Your task to perform on an android device: change the clock style Image 0: 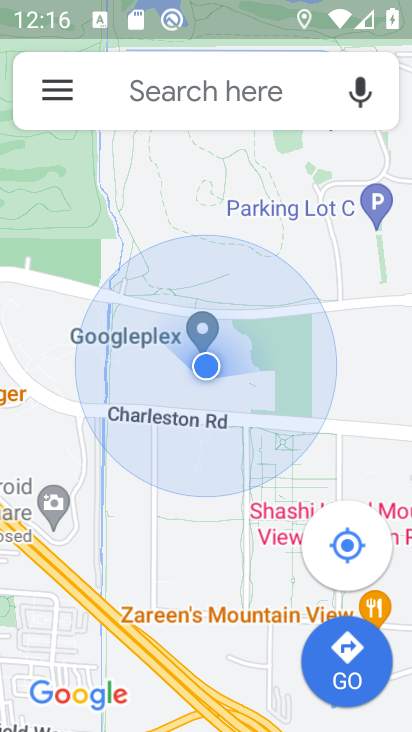
Step 0: press home button
Your task to perform on an android device: change the clock style Image 1: 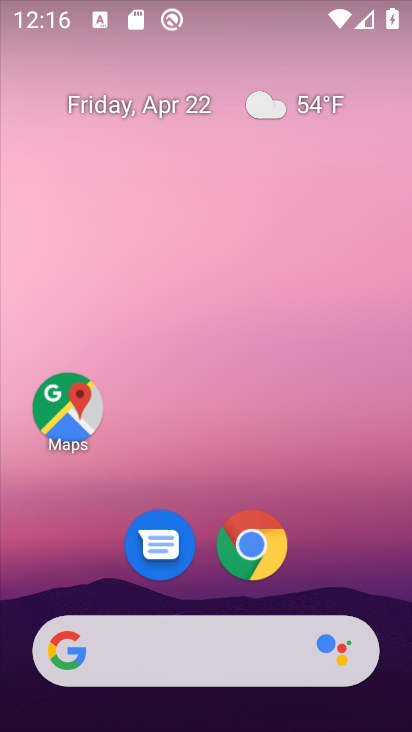
Step 1: drag from (217, 475) to (221, 144)
Your task to perform on an android device: change the clock style Image 2: 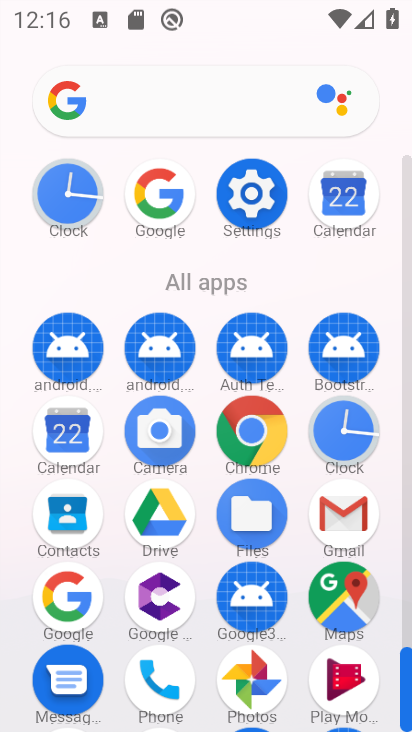
Step 2: click (355, 430)
Your task to perform on an android device: change the clock style Image 3: 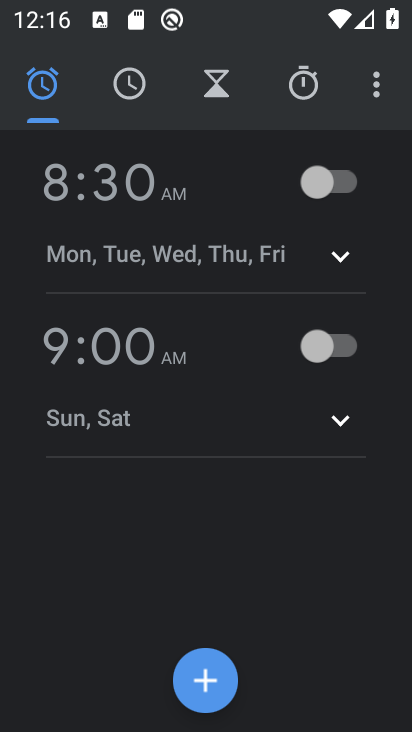
Step 3: click (370, 98)
Your task to perform on an android device: change the clock style Image 4: 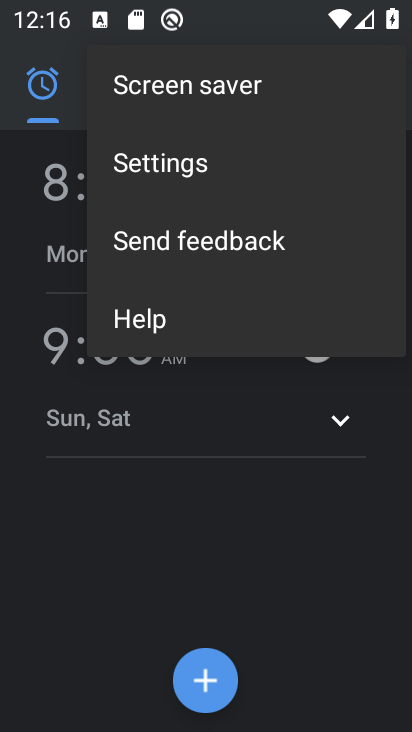
Step 4: click (222, 170)
Your task to perform on an android device: change the clock style Image 5: 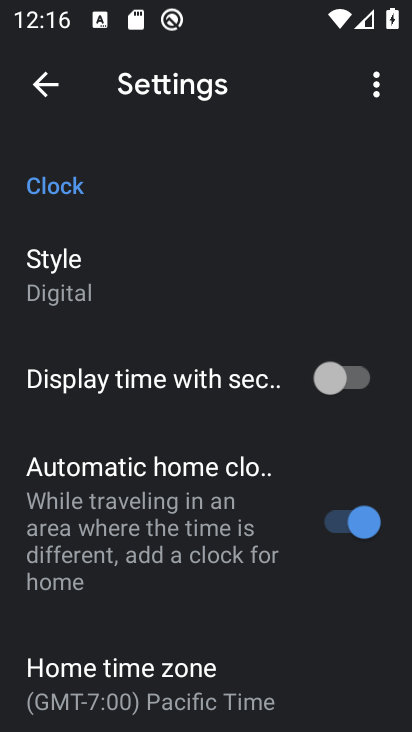
Step 5: click (210, 283)
Your task to perform on an android device: change the clock style Image 6: 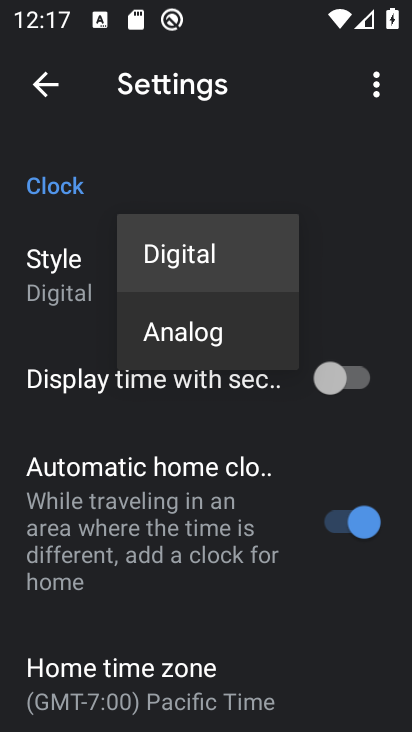
Step 6: click (216, 335)
Your task to perform on an android device: change the clock style Image 7: 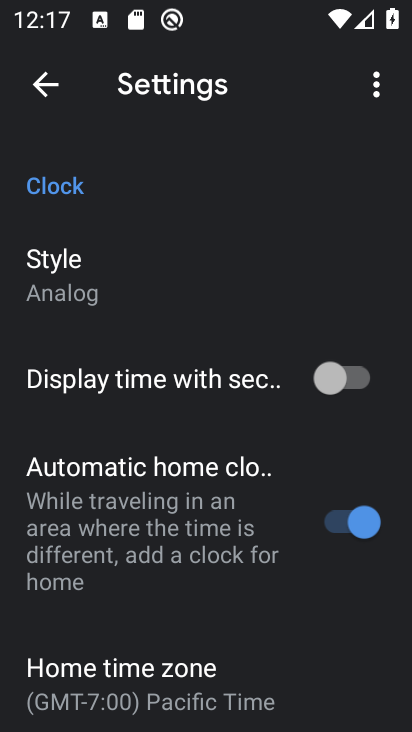
Step 7: task complete